Your task to perform on an android device: Clear the shopping cart on bestbuy.com. Search for "apple airpods pro" on bestbuy.com, select the first entry, add it to the cart, then select checkout. Image 0: 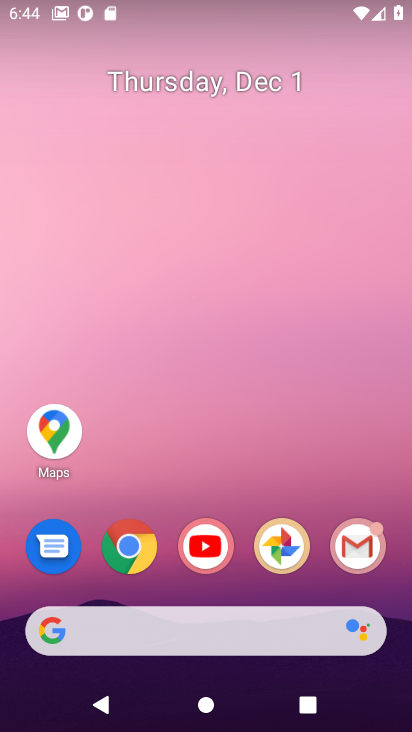
Step 0: click (130, 545)
Your task to perform on an android device: Clear the shopping cart on bestbuy.com. Search for "apple airpods pro" on bestbuy.com, select the first entry, add it to the cart, then select checkout. Image 1: 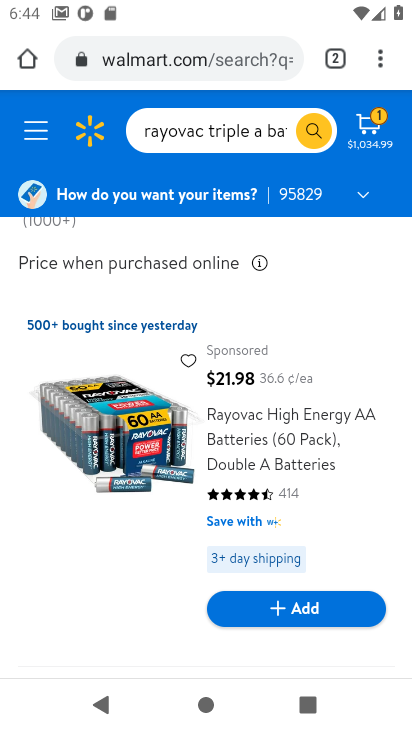
Step 1: click (182, 67)
Your task to perform on an android device: Clear the shopping cart on bestbuy.com. Search for "apple airpods pro" on bestbuy.com, select the first entry, add it to the cart, then select checkout. Image 2: 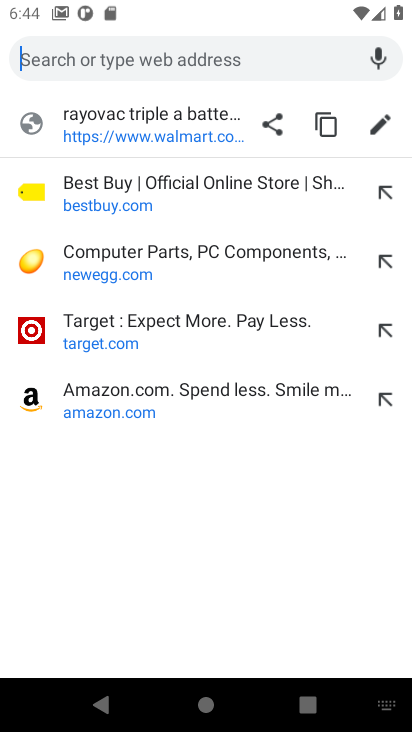
Step 2: click (82, 206)
Your task to perform on an android device: Clear the shopping cart on bestbuy.com. Search for "apple airpods pro" on bestbuy.com, select the first entry, add it to the cart, then select checkout. Image 3: 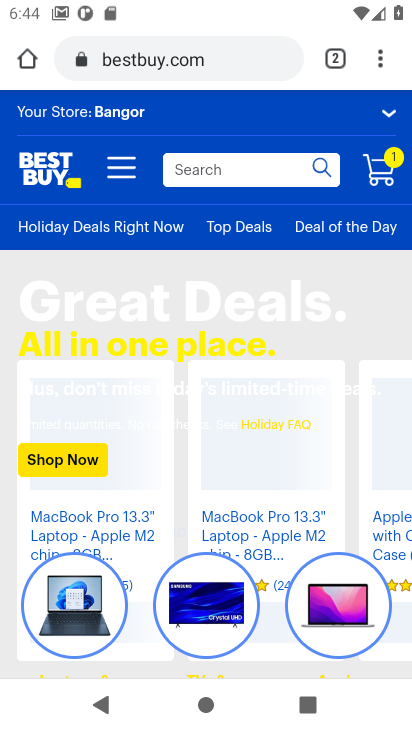
Step 3: click (374, 185)
Your task to perform on an android device: Clear the shopping cart on bestbuy.com. Search for "apple airpods pro" on bestbuy.com, select the first entry, add it to the cart, then select checkout. Image 4: 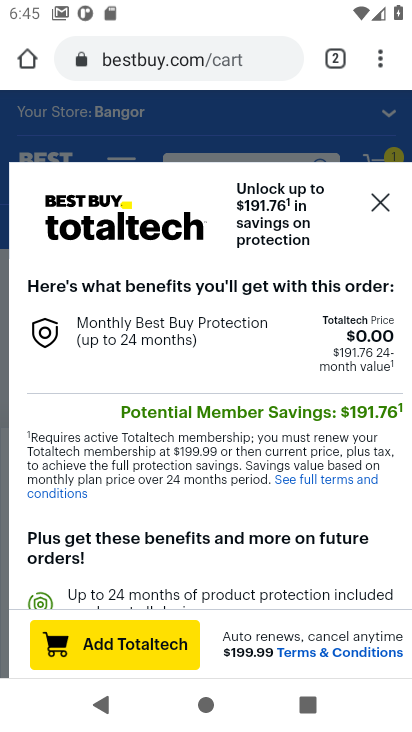
Step 4: click (381, 202)
Your task to perform on an android device: Clear the shopping cart on bestbuy.com. Search for "apple airpods pro" on bestbuy.com, select the first entry, add it to the cart, then select checkout. Image 5: 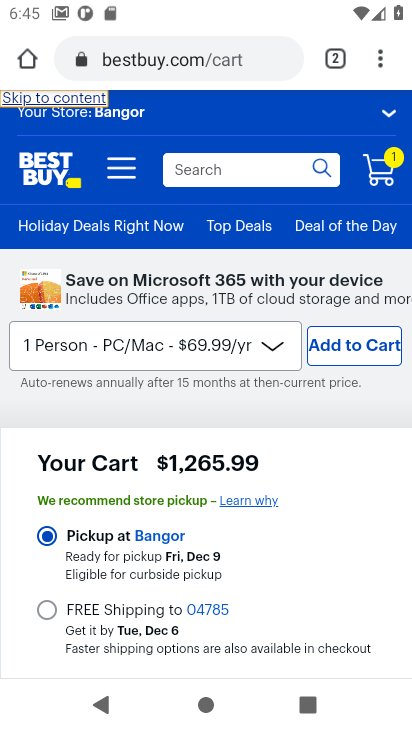
Step 5: drag from (319, 437) to (310, 109)
Your task to perform on an android device: Clear the shopping cart on bestbuy.com. Search for "apple airpods pro" on bestbuy.com, select the first entry, add it to the cart, then select checkout. Image 6: 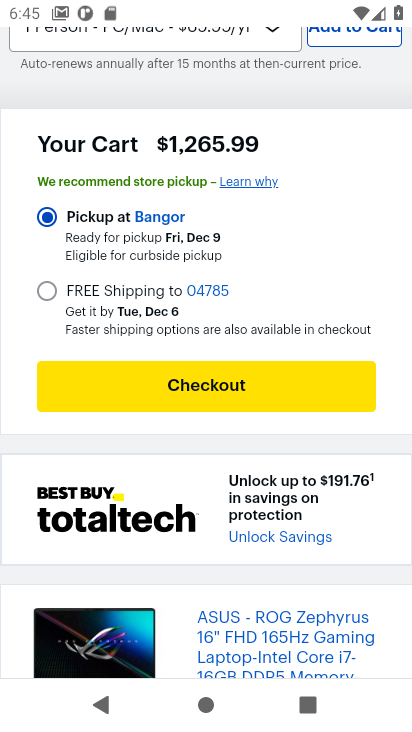
Step 6: drag from (200, 428) to (191, 174)
Your task to perform on an android device: Clear the shopping cart on bestbuy.com. Search for "apple airpods pro" on bestbuy.com, select the first entry, add it to the cart, then select checkout. Image 7: 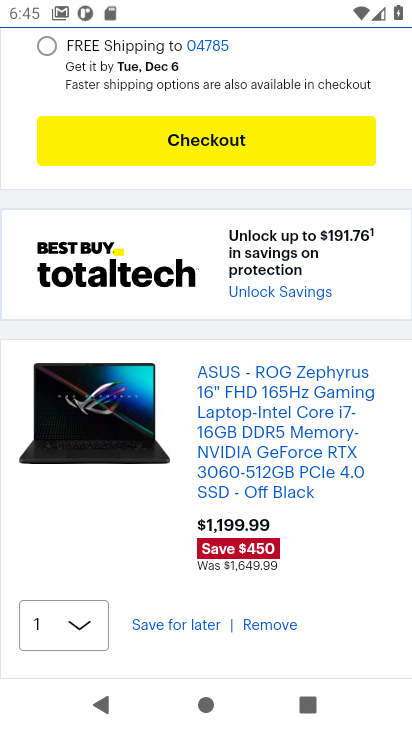
Step 7: click (273, 627)
Your task to perform on an android device: Clear the shopping cart on bestbuy.com. Search for "apple airpods pro" on bestbuy.com, select the first entry, add it to the cart, then select checkout. Image 8: 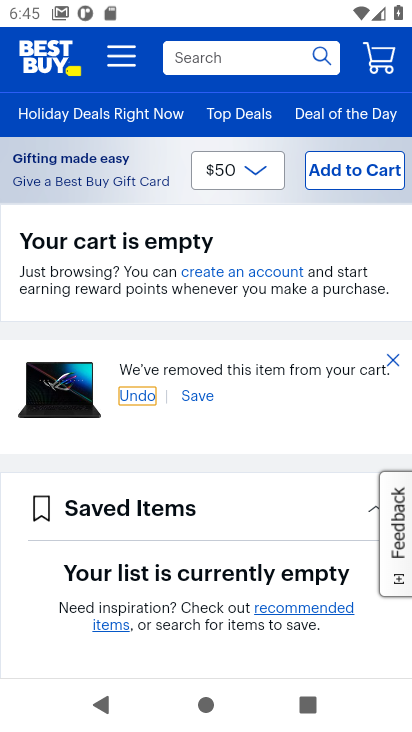
Step 8: click (195, 50)
Your task to perform on an android device: Clear the shopping cart on bestbuy.com. Search for "apple airpods pro" on bestbuy.com, select the first entry, add it to the cart, then select checkout. Image 9: 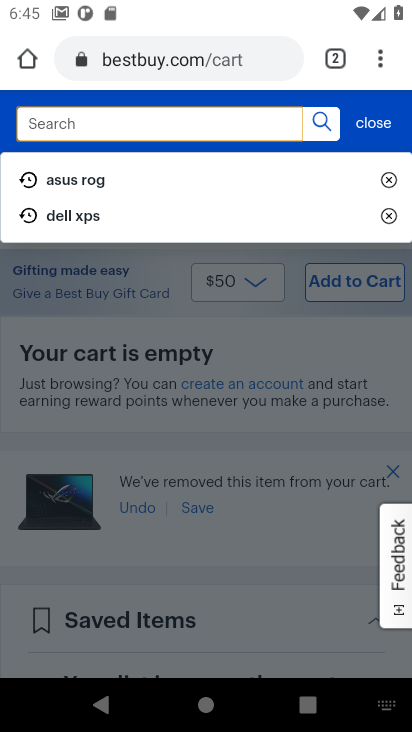
Step 9: type "apple airpods pro"
Your task to perform on an android device: Clear the shopping cart on bestbuy.com. Search for "apple airpods pro" on bestbuy.com, select the first entry, add it to the cart, then select checkout. Image 10: 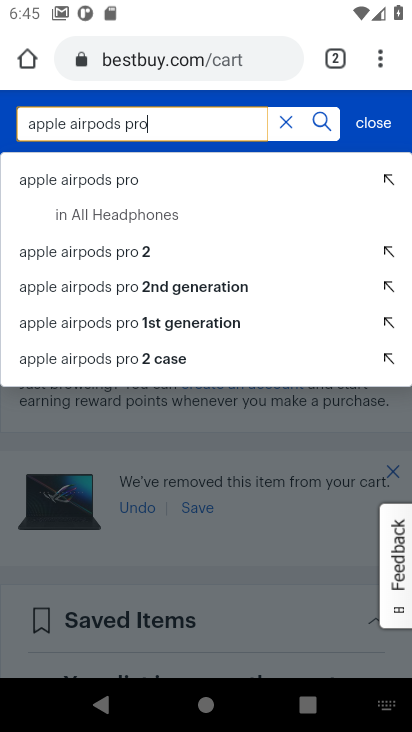
Step 10: click (68, 175)
Your task to perform on an android device: Clear the shopping cart on bestbuy.com. Search for "apple airpods pro" on bestbuy.com, select the first entry, add it to the cart, then select checkout. Image 11: 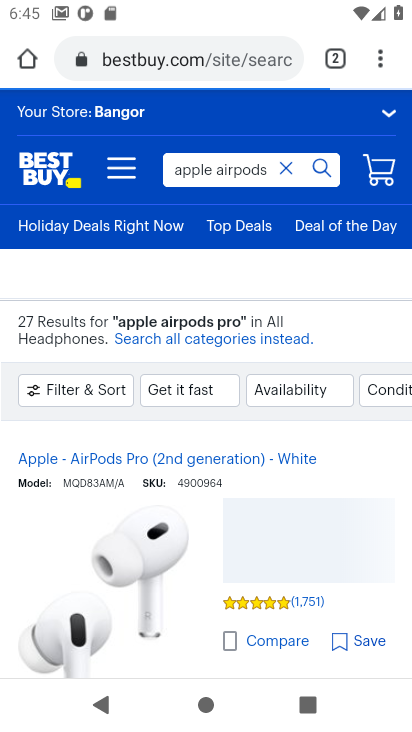
Step 11: drag from (258, 480) to (237, 272)
Your task to perform on an android device: Clear the shopping cart on bestbuy.com. Search for "apple airpods pro" on bestbuy.com, select the first entry, add it to the cart, then select checkout. Image 12: 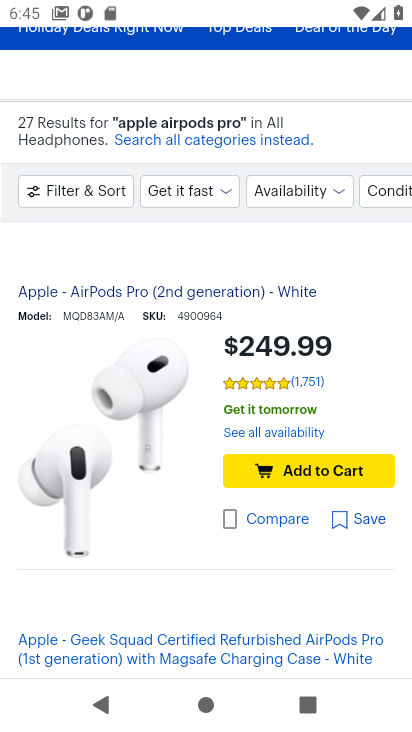
Step 12: click (266, 466)
Your task to perform on an android device: Clear the shopping cart on bestbuy.com. Search for "apple airpods pro" on bestbuy.com, select the first entry, add it to the cart, then select checkout. Image 13: 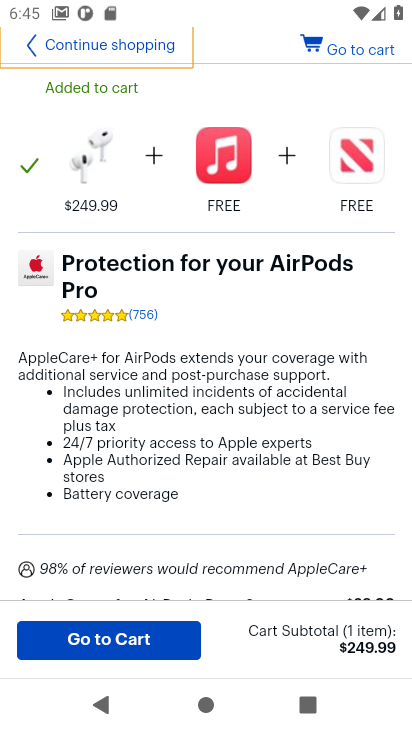
Step 13: click (359, 51)
Your task to perform on an android device: Clear the shopping cart on bestbuy.com. Search for "apple airpods pro" on bestbuy.com, select the first entry, add it to the cart, then select checkout. Image 14: 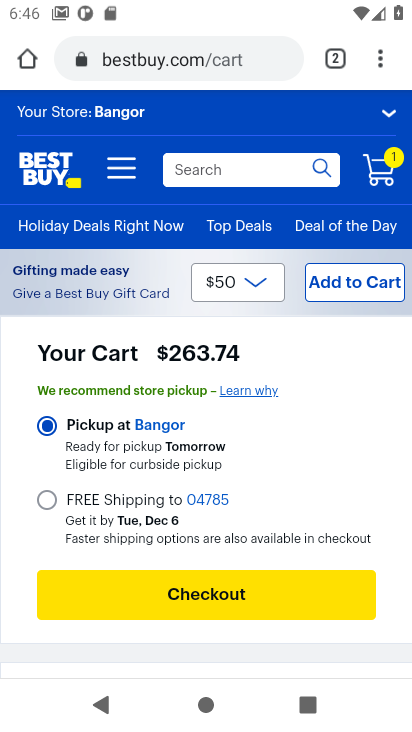
Step 14: click (185, 597)
Your task to perform on an android device: Clear the shopping cart on bestbuy.com. Search for "apple airpods pro" on bestbuy.com, select the first entry, add it to the cart, then select checkout. Image 15: 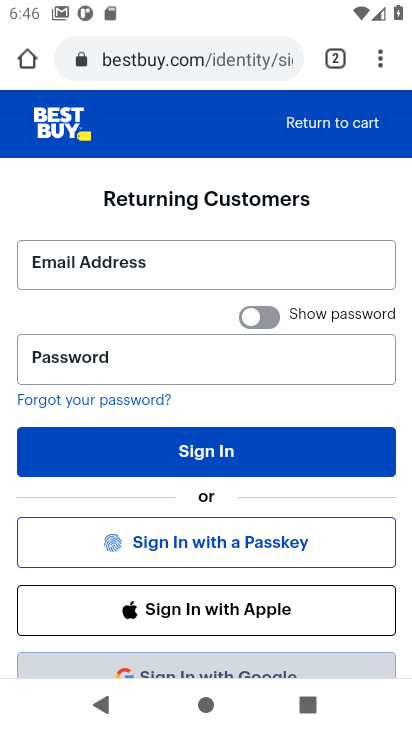
Step 15: task complete